Your task to perform on an android device: Go to wifi settings Image 0: 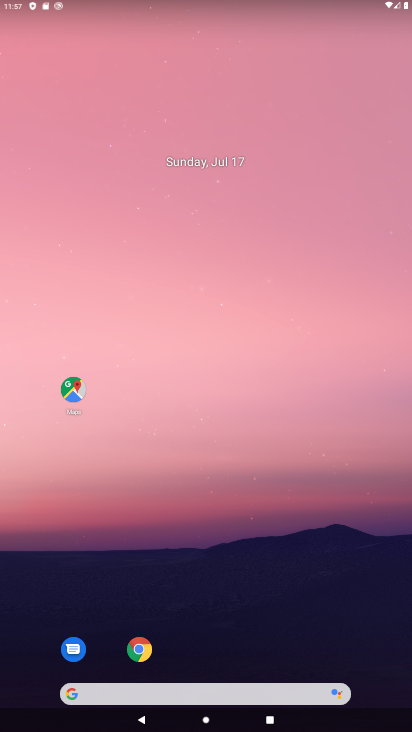
Step 0: drag from (126, 516) to (322, 65)
Your task to perform on an android device: Go to wifi settings Image 1: 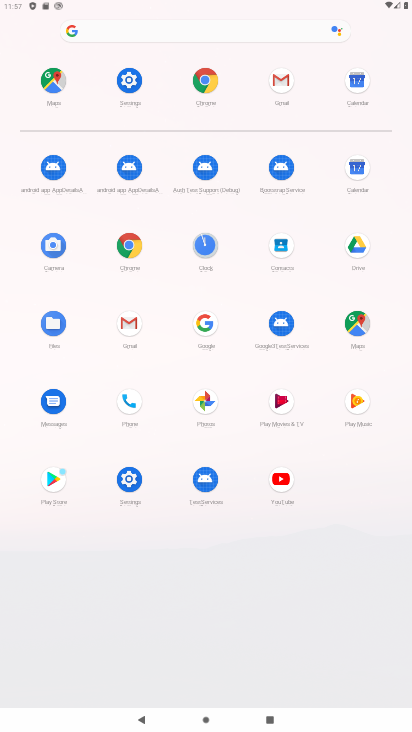
Step 1: click (134, 478)
Your task to perform on an android device: Go to wifi settings Image 2: 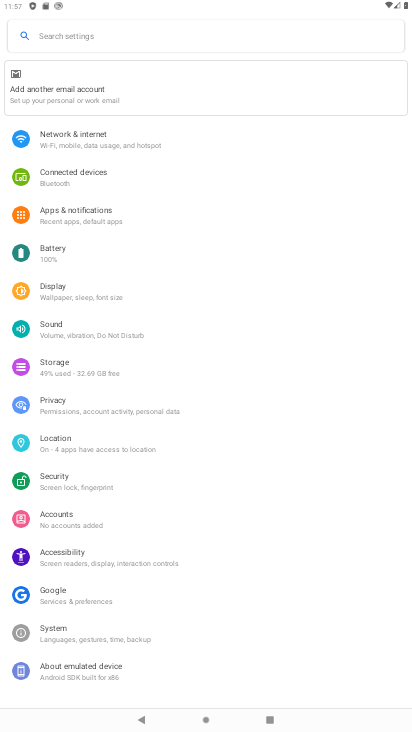
Step 2: click (85, 139)
Your task to perform on an android device: Go to wifi settings Image 3: 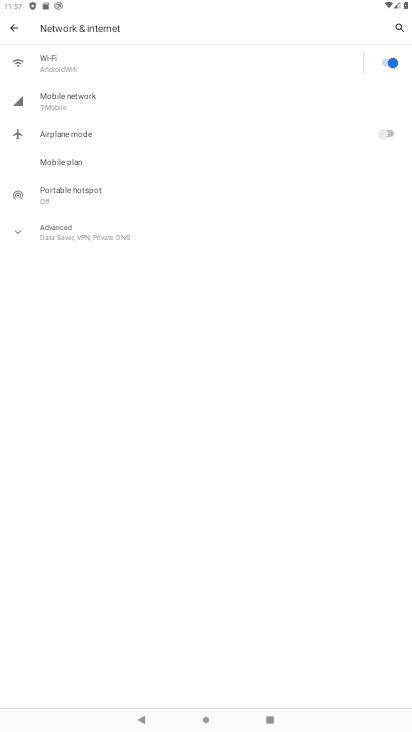
Step 3: task complete